Your task to perform on an android device: turn off picture-in-picture Image 0: 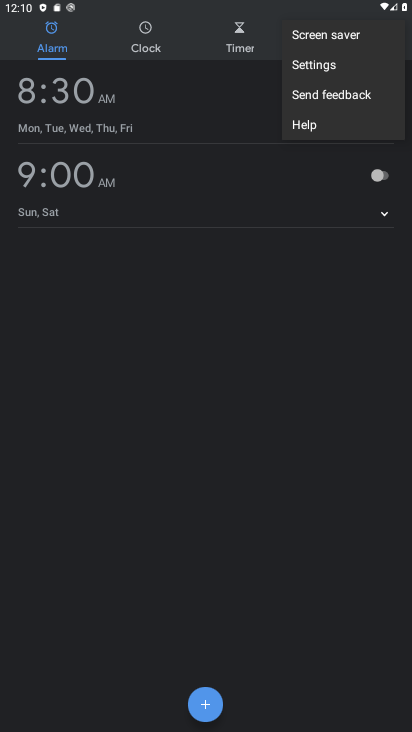
Step 0: task complete